Your task to perform on an android device: turn on the 24-hour format for clock Image 0: 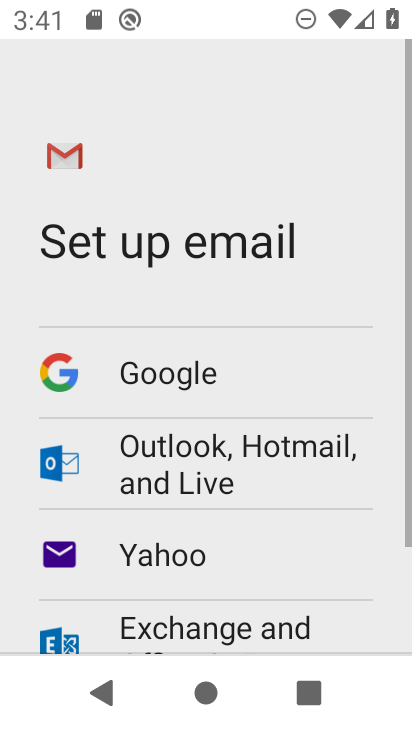
Step 0: press back button
Your task to perform on an android device: turn on the 24-hour format for clock Image 1: 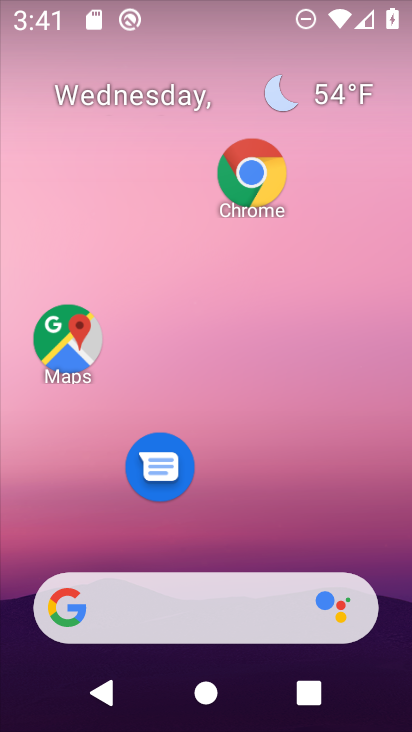
Step 1: drag from (262, 525) to (284, 113)
Your task to perform on an android device: turn on the 24-hour format for clock Image 2: 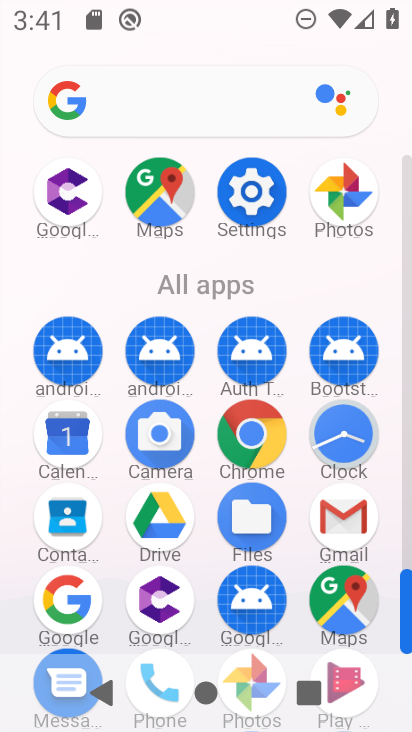
Step 2: click (350, 427)
Your task to perform on an android device: turn on the 24-hour format for clock Image 3: 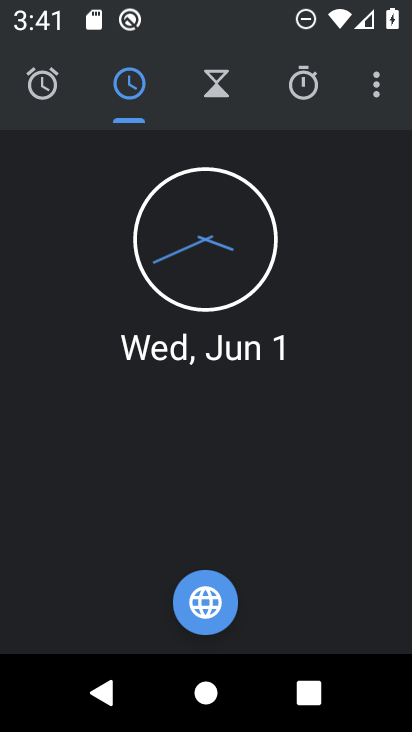
Step 3: click (383, 75)
Your task to perform on an android device: turn on the 24-hour format for clock Image 4: 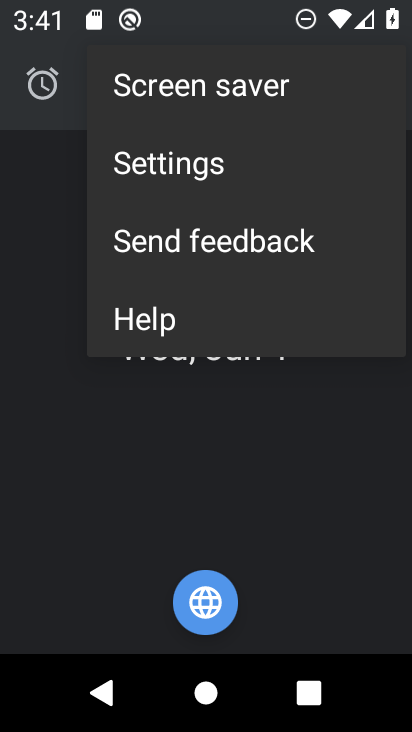
Step 4: click (188, 163)
Your task to perform on an android device: turn on the 24-hour format for clock Image 5: 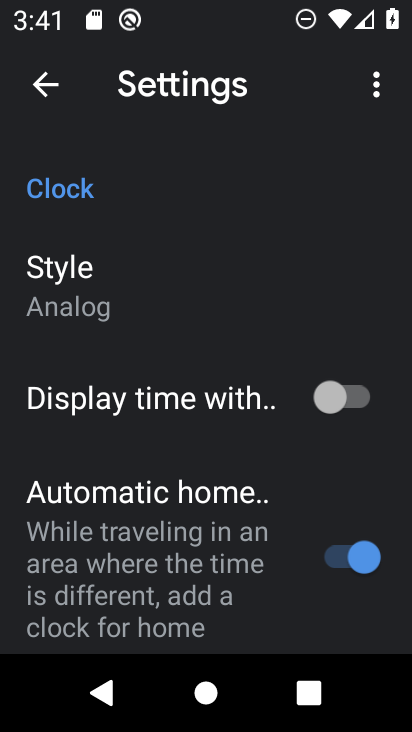
Step 5: drag from (190, 586) to (294, 130)
Your task to perform on an android device: turn on the 24-hour format for clock Image 6: 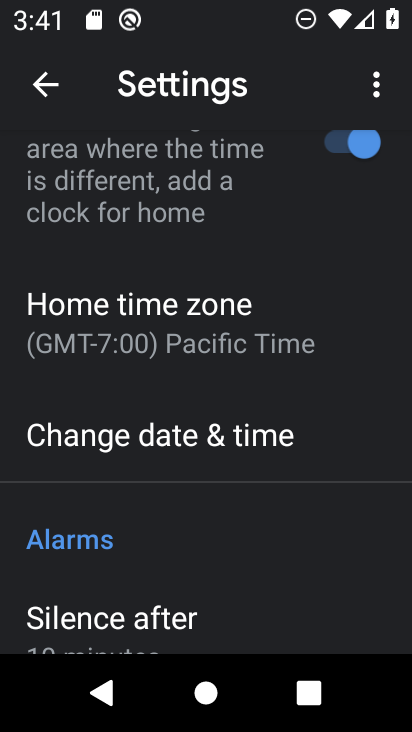
Step 6: click (204, 443)
Your task to perform on an android device: turn on the 24-hour format for clock Image 7: 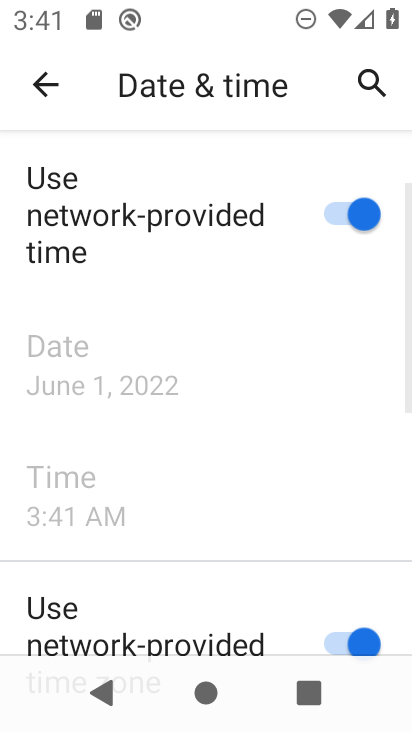
Step 7: drag from (199, 565) to (254, 83)
Your task to perform on an android device: turn on the 24-hour format for clock Image 8: 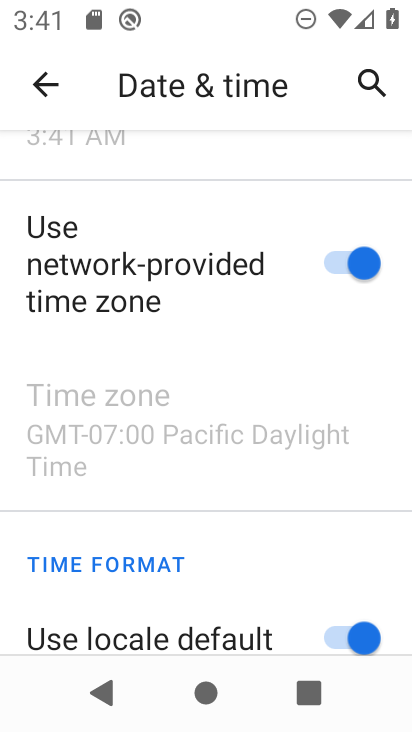
Step 8: drag from (156, 613) to (216, 130)
Your task to perform on an android device: turn on the 24-hour format for clock Image 9: 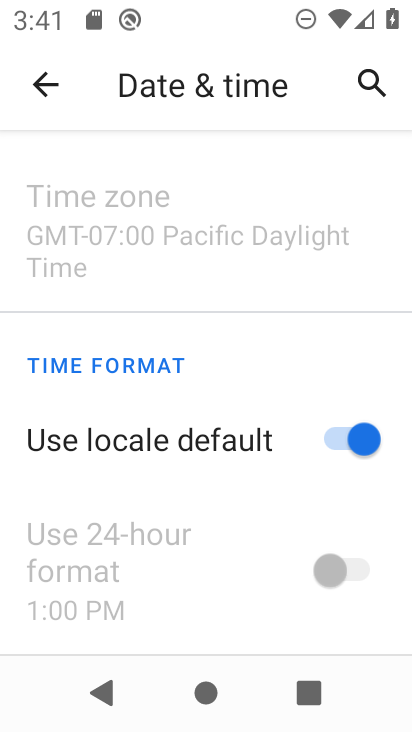
Step 9: click (352, 444)
Your task to perform on an android device: turn on the 24-hour format for clock Image 10: 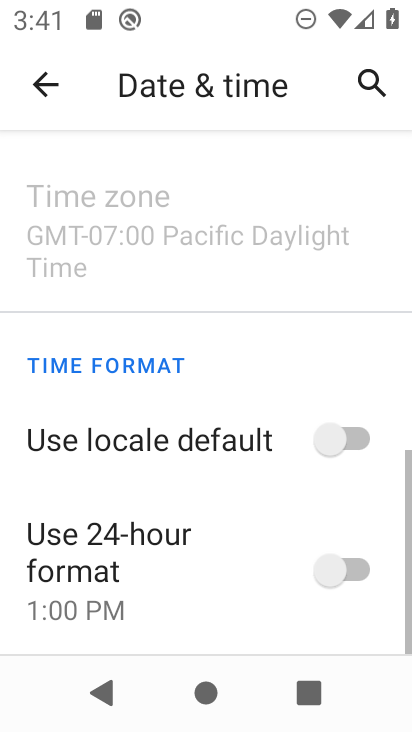
Step 10: click (350, 576)
Your task to perform on an android device: turn on the 24-hour format for clock Image 11: 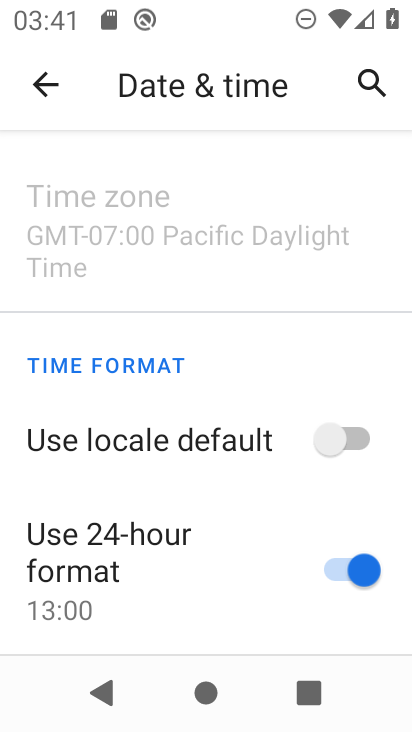
Step 11: task complete